Your task to perform on an android device: open the mobile data screen to see how much data has been used Image 0: 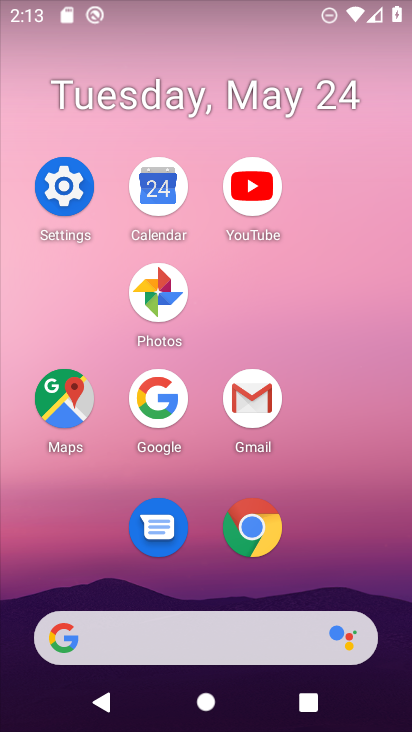
Step 0: click (69, 176)
Your task to perform on an android device: open the mobile data screen to see how much data has been used Image 1: 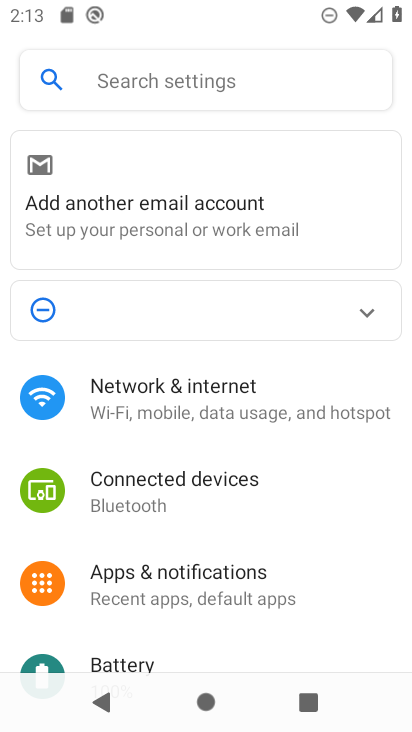
Step 1: drag from (293, 570) to (206, 281)
Your task to perform on an android device: open the mobile data screen to see how much data has been used Image 2: 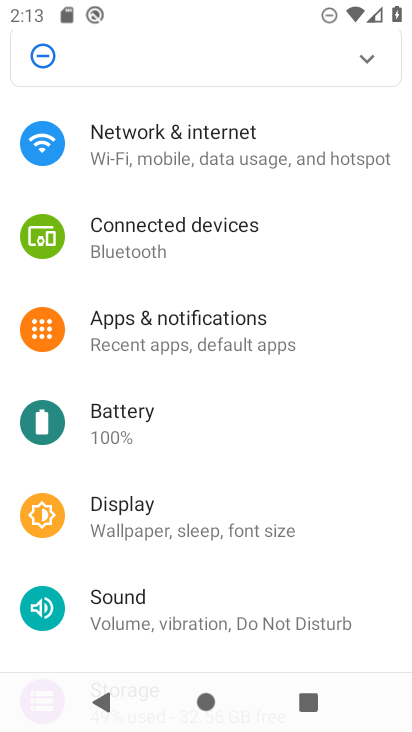
Step 2: click (201, 130)
Your task to perform on an android device: open the mobile data screen to see how much data has been used Image 3: 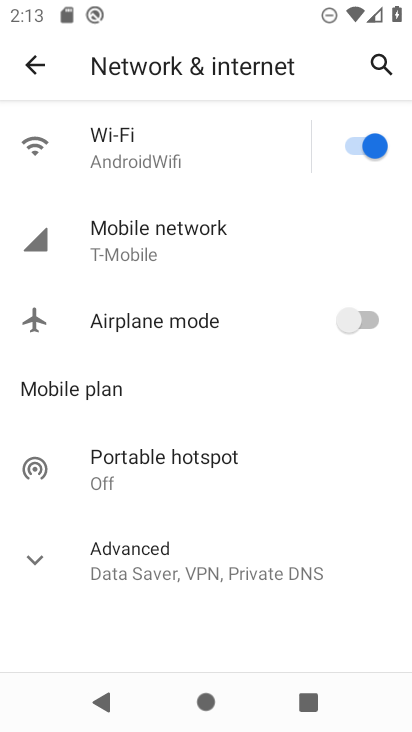
Step 3: click (216, 231)
Your task to perform on an android device: open the mobile data screen to see how much data has been used Image 4: 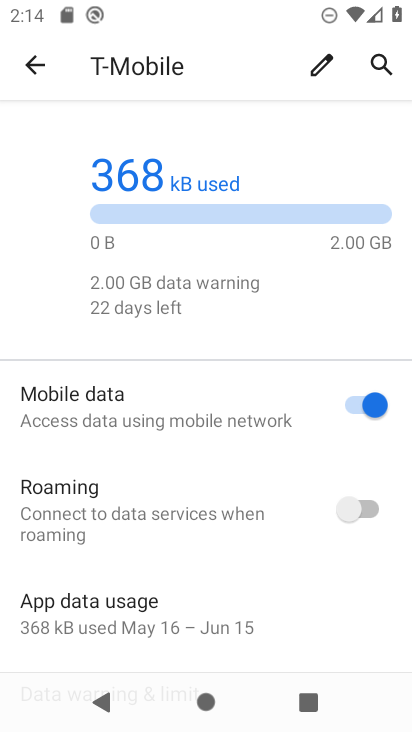
Step 4: task complete